Your task to perform on an android device: change the clock display to digital Image 0: 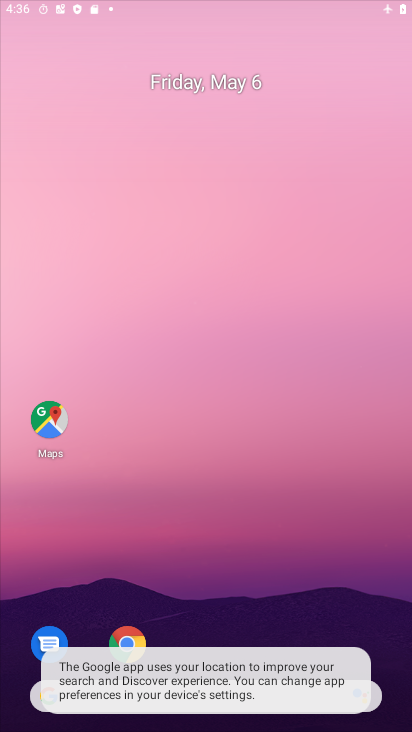
Step 0: drag from (294, 657) to (273, 198)
Your task to perform on an android device: change the clock display to digital Image 1: 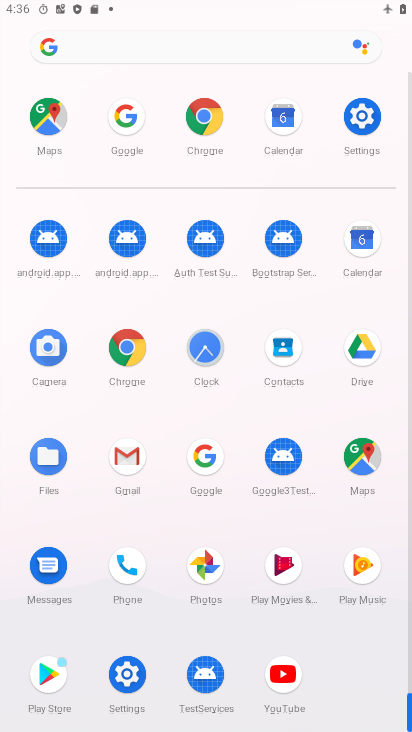
Step 1: click (207, 350)
Your task to perform on an android device: change the clock display to digital Image 2: 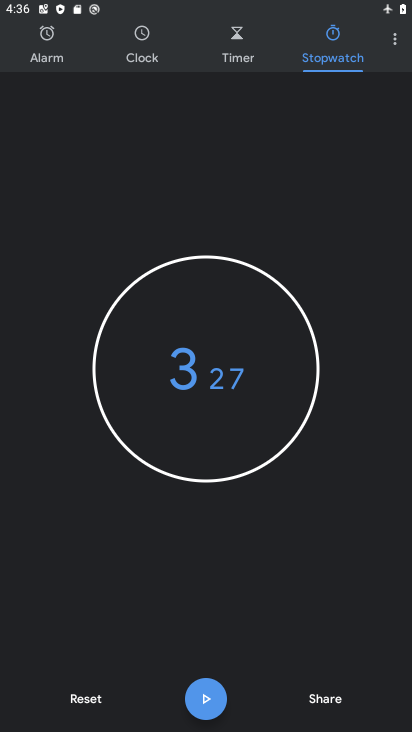
Step 2: click (380, 34)
Your task to perform on an android device: change the clock display to digital Image 3: 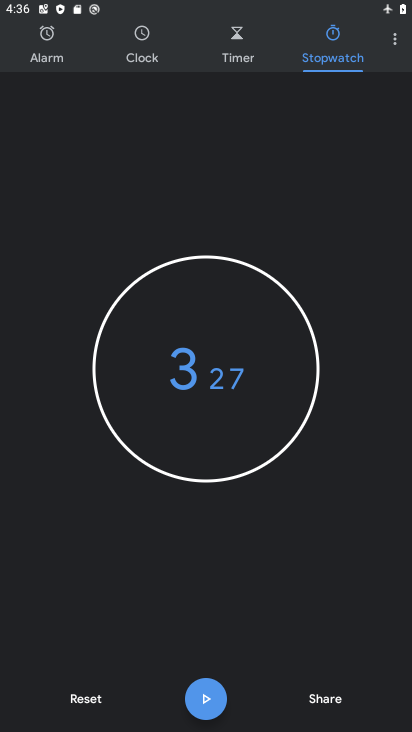
Step 3: click (391, 42)
Your task to perform on an android device: change the clock display to digital Image 4: 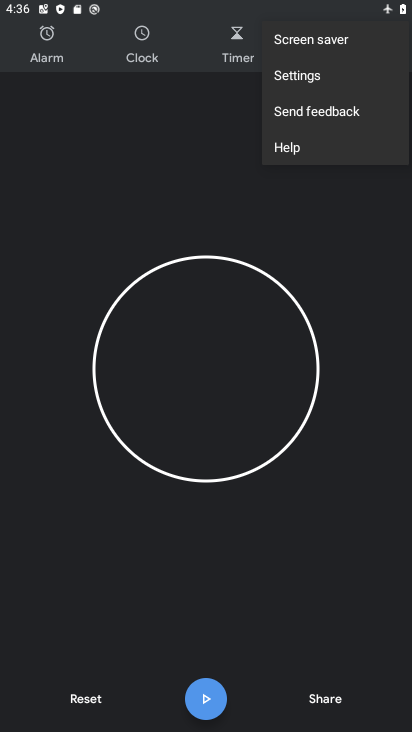
Step 4: click (298, 84)
Your task to perform on an android device: change the clock display to digital Image 5: 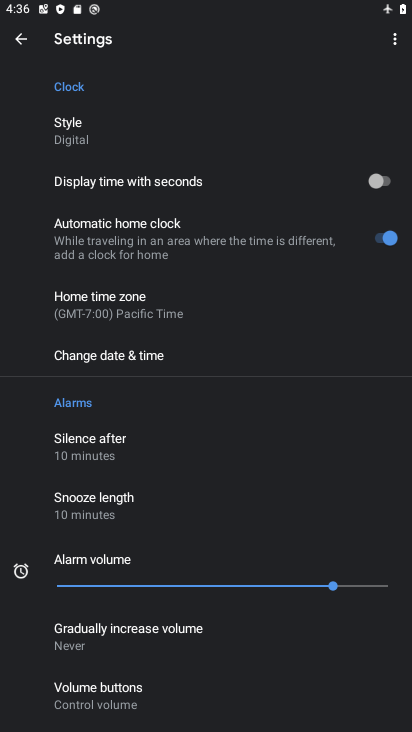
Step 5: click (152, 134)
Your task to perform on an android device: change the clock display to digital Image 6: 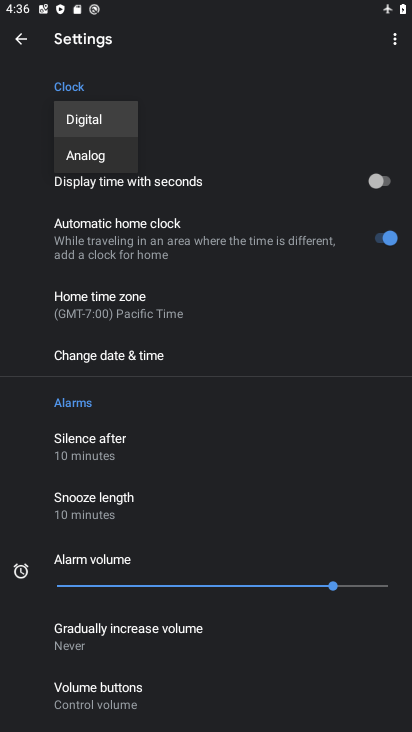
Step 6: click (101, 124)
Your task to perform on an android device: change the clock display to digital Image 7: 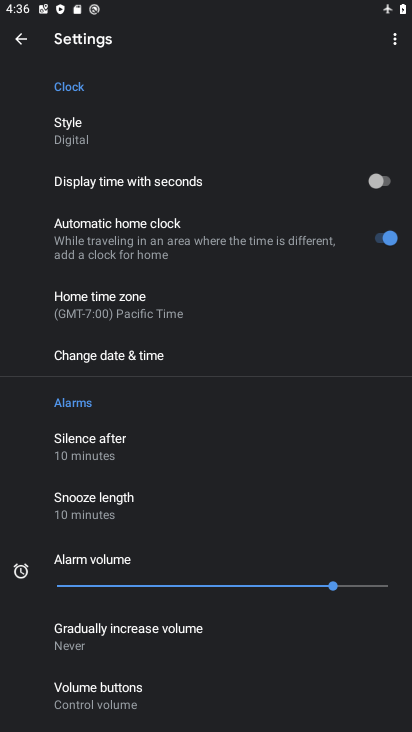
Step 7: task complete